Your task to perform on an android device: What is the recent news? Image 0: 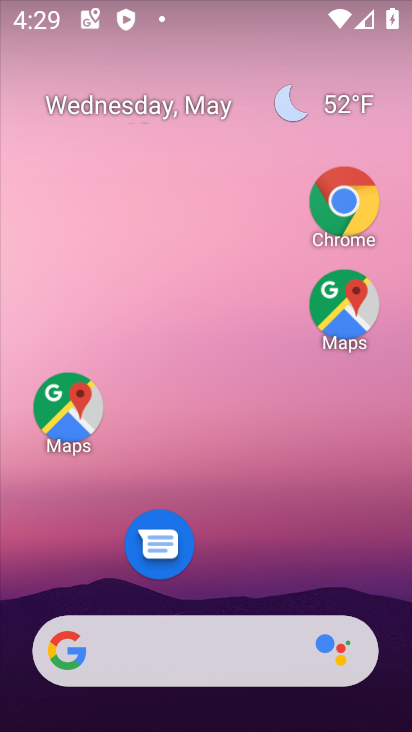
Step 0: drag from (288, 546) to (327, 141)
Your task to perform on an android device: What is the recent news? Image 1: 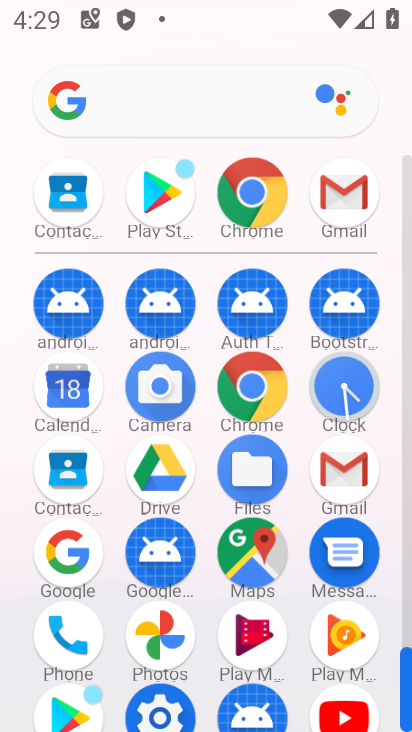
Step 1: click (79, 552)
Your task to perform on an android device: What is the recent news? Image 2: 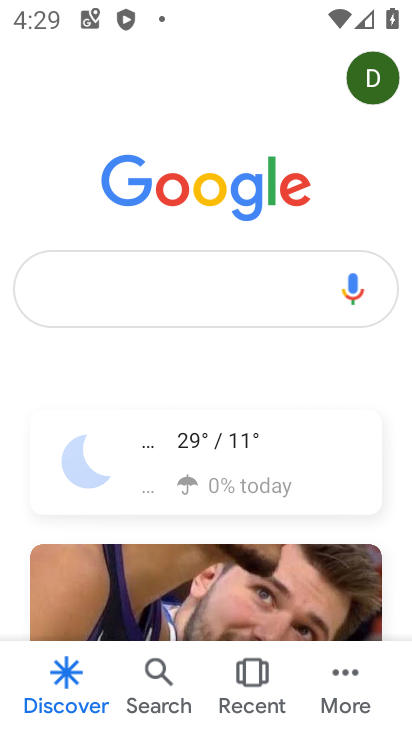
Step 2: click (192, 276)
Your task to perform on an android device: What is the recent news? Image 3: 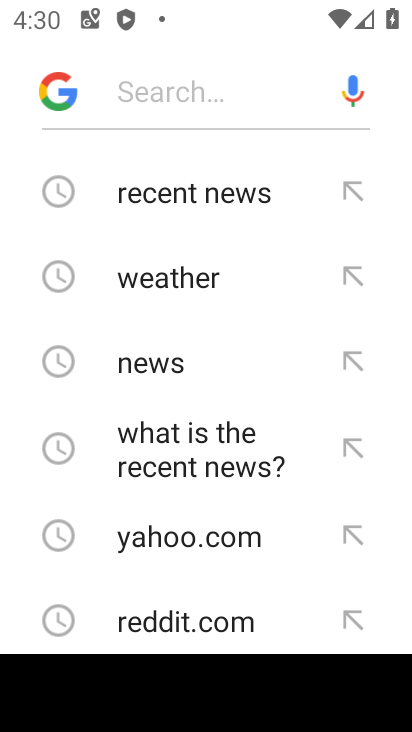
Step 3: click (187, 210)
Your task to perform on an android device: What is the recent news? Image 4: 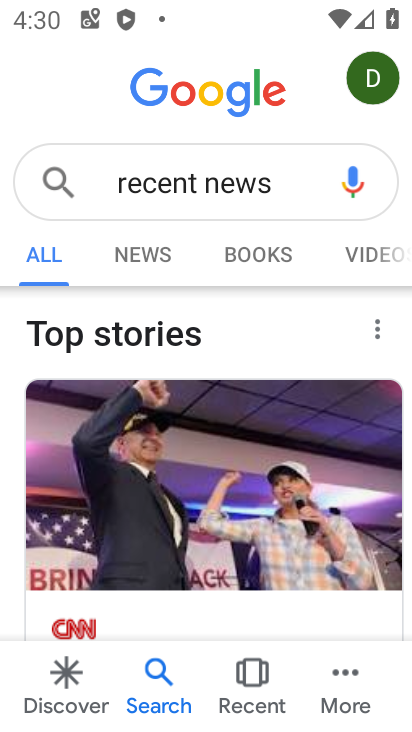
Step 4: task complete